Your task to perform on an android device: clear all cookies in the chrome app Image 0: 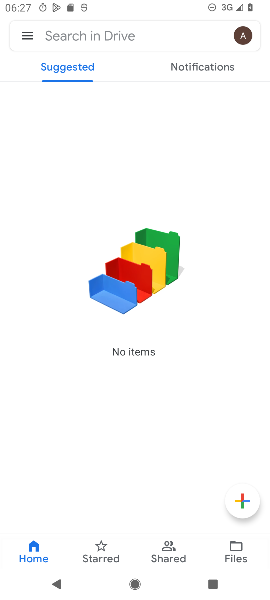
Step 0: press home button
Your task to perform on an android device: clear all cookies in the chrome app Image 1: 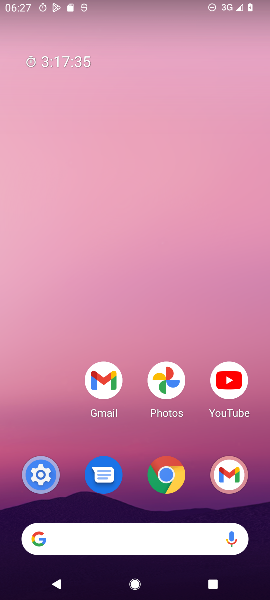
Step 1: drag from (53, 413) to (62, 189)
Your task to perform on an android device: clear all cookies in the chrome app Image 2: 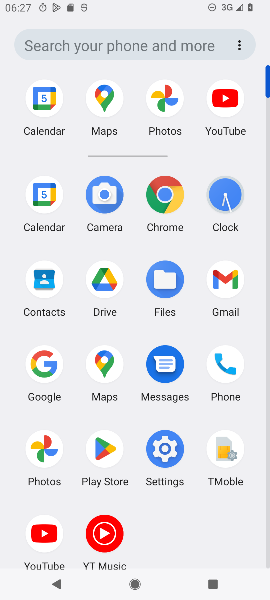
Step 2: click (168, 199)
Your task to perform on an android device: clear all cookies in the chrome app Image 3: 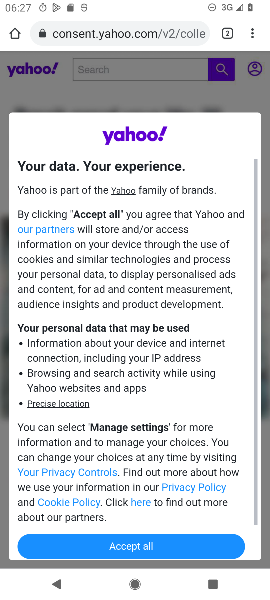
Step 3: click (255, 35)
Your task to perform on an android device: clear all cookies in the chrome app Image 4: 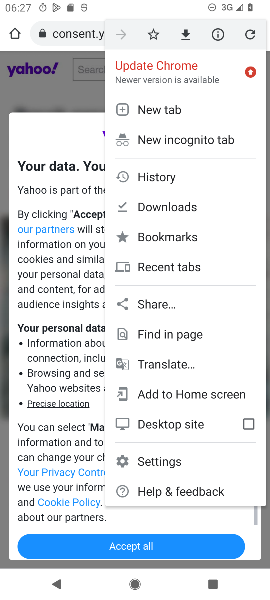
Step 4: click (188, 458)
Your task to perform on an android device: clear all cookies in the chrome app Image 5: 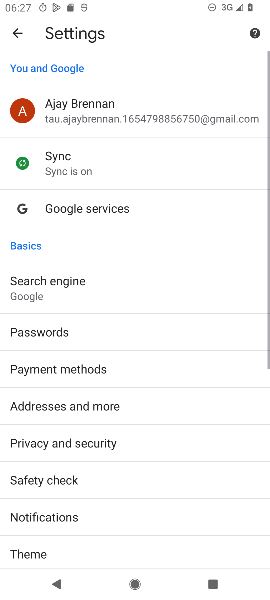
Step 5: drag from (188, 458) to (198, 375)
Your task to perform on an android device: clear all cookies in the chrome app Image 6: 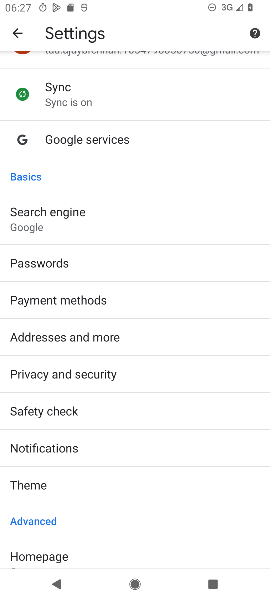
Step 6: drag from (190, 442) to (199, 369)
Your task to perform on an android device: clear all cookies in the chrome app Image 7: 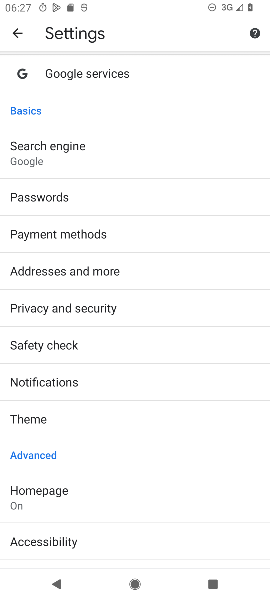
Step 7: drag from (198, 462) to (210, 384)
Your task to perform on an android device: clear all cookies in the chrome app Image 8: 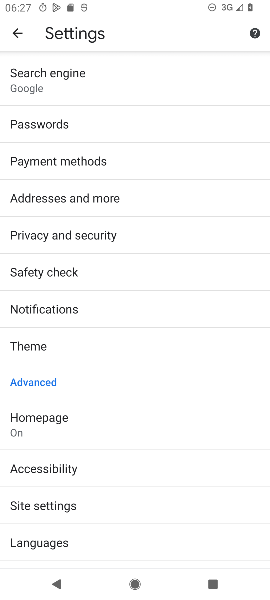
Step 8: drag from (206, 461) to (205, 380)
Your task to perform on an android device: clear all cookies in the chrome app Image 9: 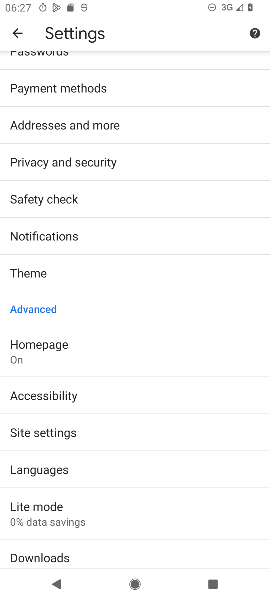
Step 9: drag from (188, 455) to (201, 375)
Your task to perform on an android device: clear all cookies in the chrome app Image 10: 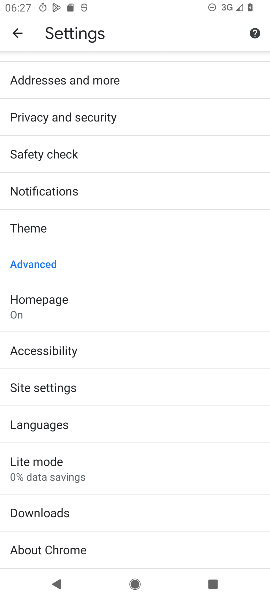
Step 10: drag from (157, 421) to (171, 315)
Your task to perform on an android device: clear all cookies in the chrome app Image 11: 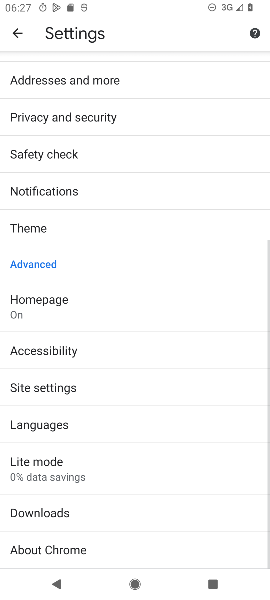
Step 11: drag from (198, 287) to (200, 346)
Your task to perform on an android device: clear all cookies in the chrome app Image 12: 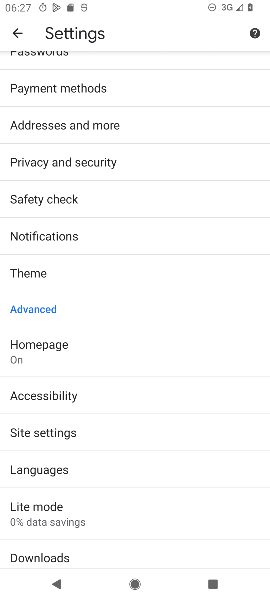
Step 12: drag from (199, 270) to (201, 353)
Your task to perform on an android device: clear all cookies in the chrome app Image 13: 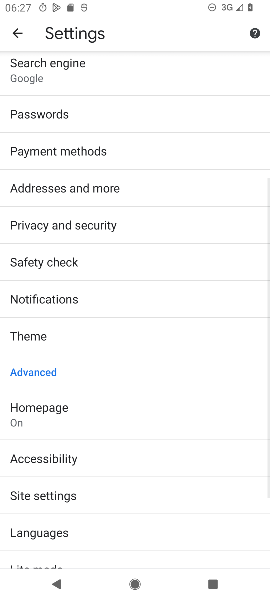
Step 13: drag from (201, 242) to (204, 337)
Your task to perform on an android device: clear all cookies in the chrome app Image 14: 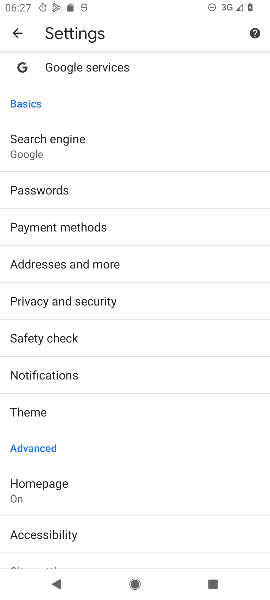
Step 14: click (184, 300)
Your task to perform on an android device: clear all cookies in the chrome app Image 15: 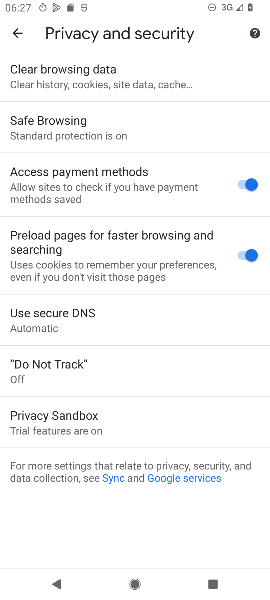
Step 15: click (178, 78)
Your task to perform on an android device: clear all cookies in the chrome app Image 16: 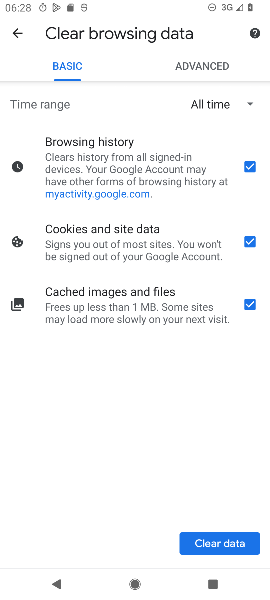
Step 16: click (223, 542)
Your task to perform on an android device: clear all cookies in the chrome app Image 17: 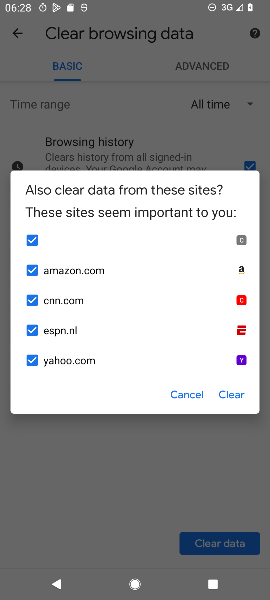
Step 17: click (240, 396)
Your task to perform on an android device: clear all cookies in the chrome app Image 18: 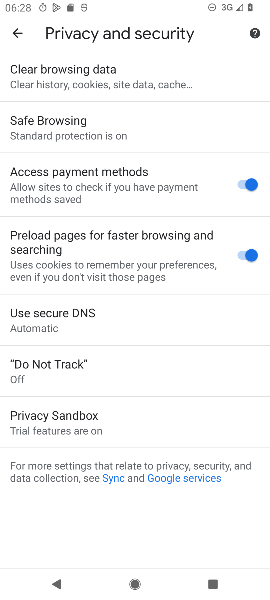
Step 18: task complete